Your task to perform on an android device: change notification settings in the gmail app Image 0: 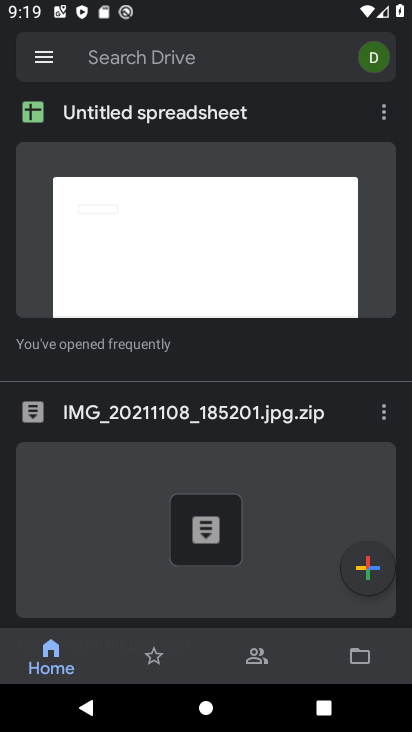
Step 0: task complete